Your task to perform on an android device: Play the last video I watched on Youtube Image 0: 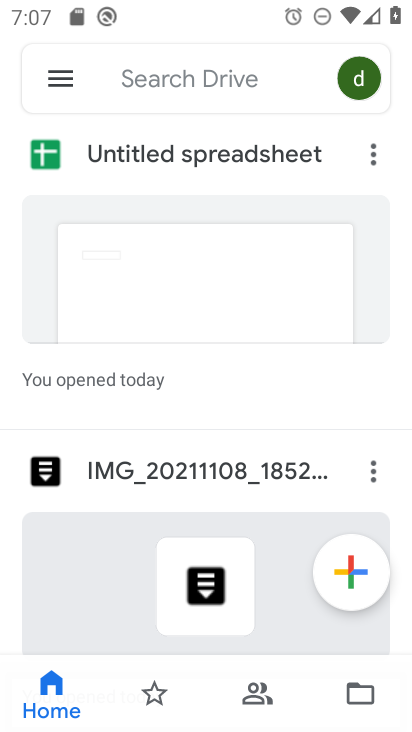
Step 0: press home button
Your task to perform on an android device: Play the last video I watched on Youtube Image 1: 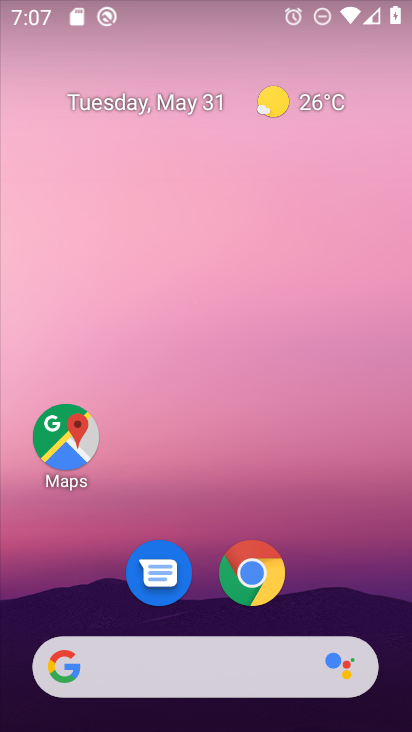
Step 1: drag from (372, 658) to (300, 205)
Your task to perform on an android device: Play the last video I watched on Youtube Image 2: 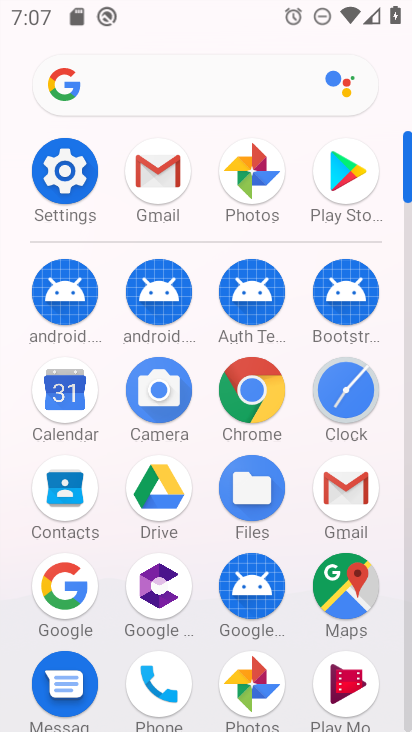
Step 2: drag from (300, 633) to (294, 124)
Your task to perform on an android device: Play the last video I watched on Youtube Image 3: 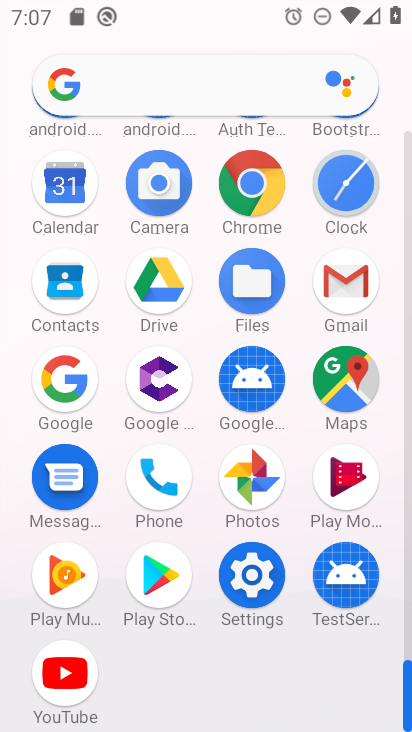
Step 3: click (45, 681)
Your task to perform on an android device: Play the last video I watched on Youtube Image 4: 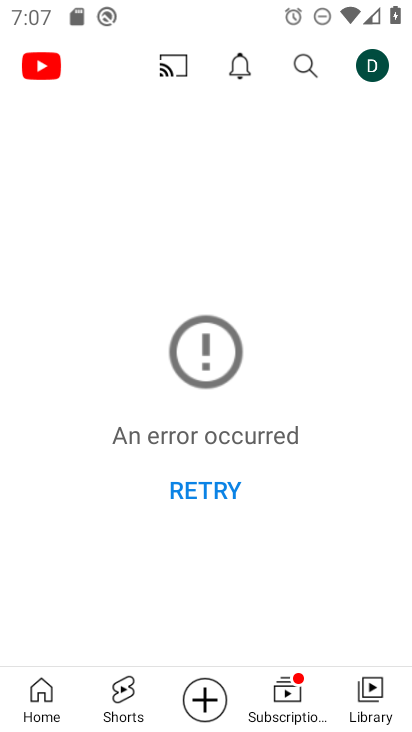
Step 4: click (221, 482)
Your task to perform on an android device: Play the last video I watched on Youtube Image 5: 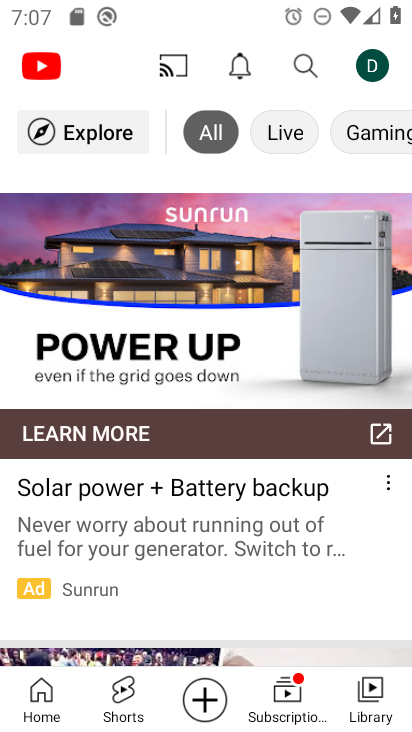
Step 5: click (380, 705)
Your task to perform on an android device: Play the last video I watched on Youtube Image 6: 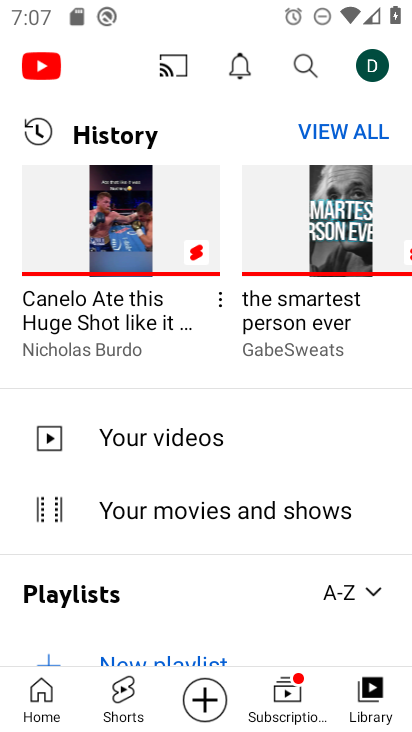
Step 6: click (106, 214)
Your task to perform on an android device: Play the last video I watched on Youtube Image 7: 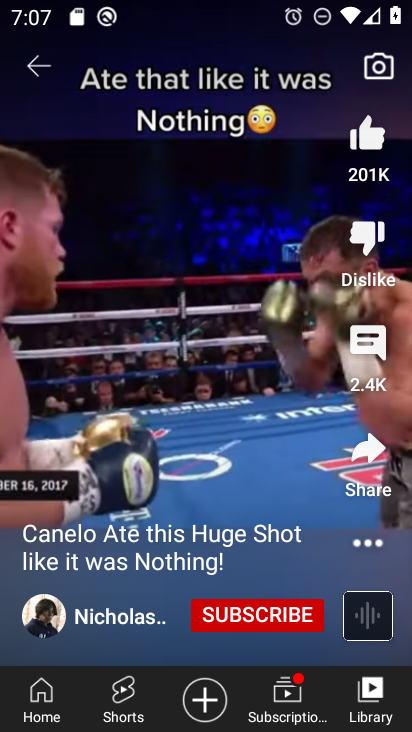
Step 7: click (225, 342)
Your task to perform on an android device: Play the last video I watched on Youtube Image 8: 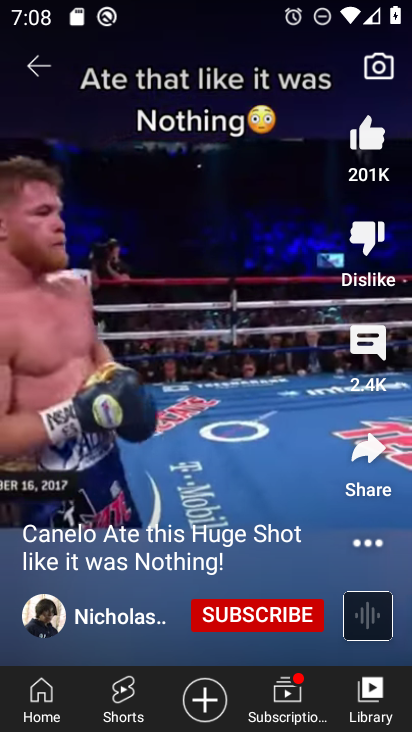
Step 8: task complete